Your task to perform on an android device: toggle javascript in the chrome app Image 0: 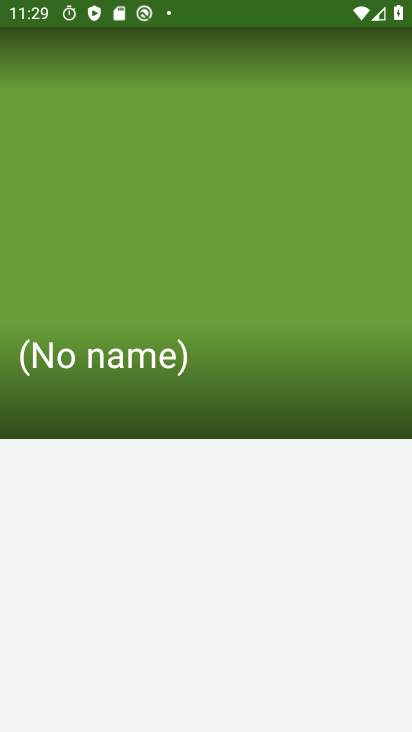
Step 0: drag from (260, 665) to (260, 243)
Your task to perform on an android device: toggle javascript in the chrome app Image 1: 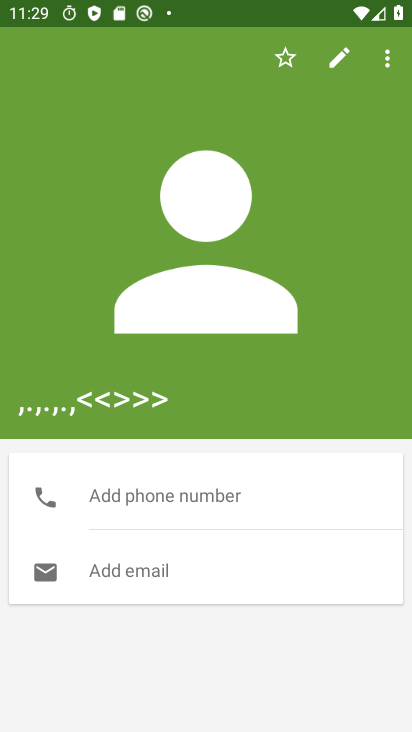
Step 1: press back button
Your task to perform on an android device: toggle javascript in the chrome app Image 2: 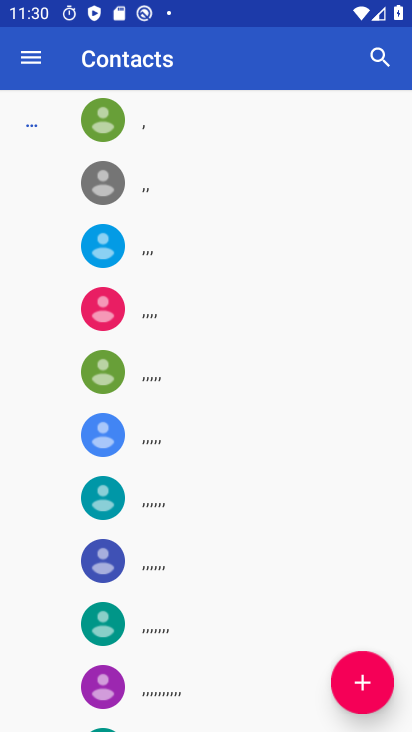
Step 2: press home button
Your task to perform on an android device: toggle javascript in the chrome app Image 3: 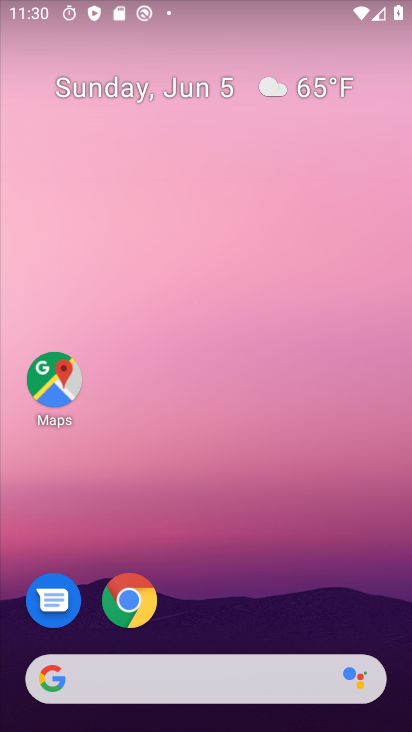
Step 3: drag from (238, 690) to (167, 518)
Your task to perform on an android device: toggle javascript in the chrome app Image 4: 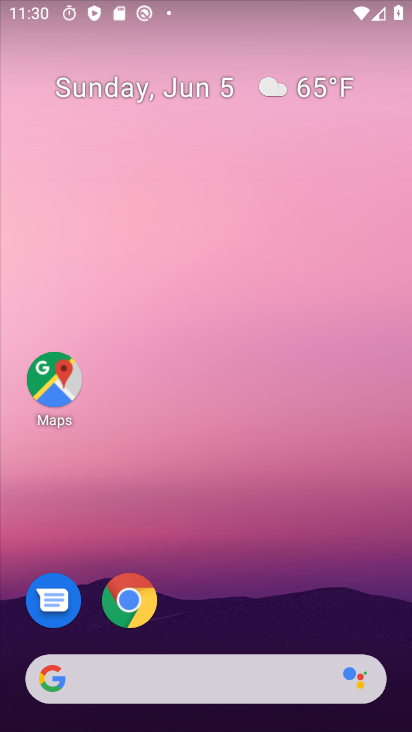
Step 4: drag from (212, 683) to (202, 45)
Your task to perform on an android device: toggle javascript in the chrome app Image 5: 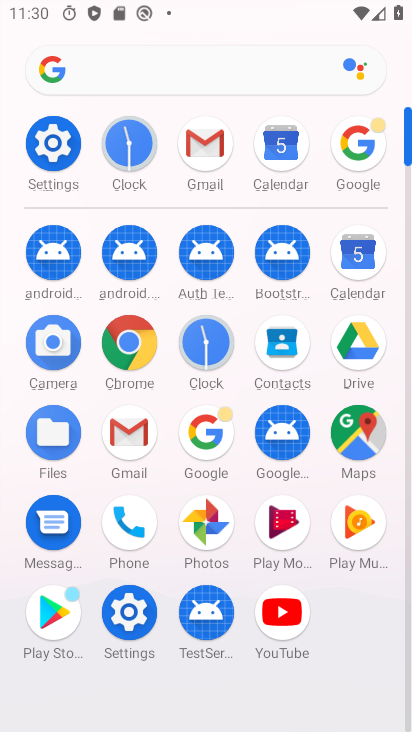
Step 5: click (121, 352)
Your task to perform on an android device: toggle javascript in the chrome app Image 6: 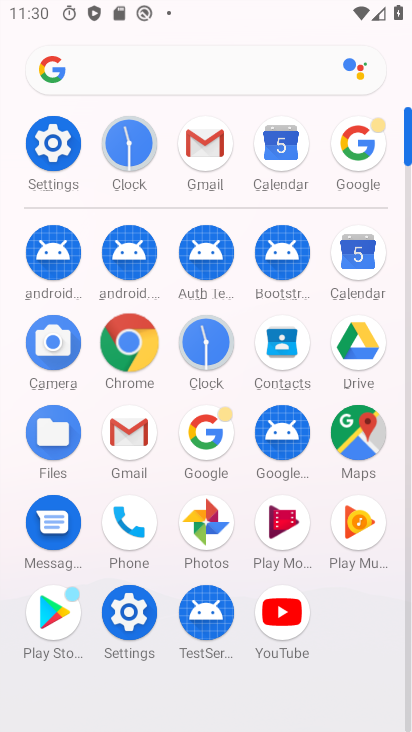
Step 6: click (130, 341)
Your task to perform on an android device: toggle javascript in the chrome app Image 7: 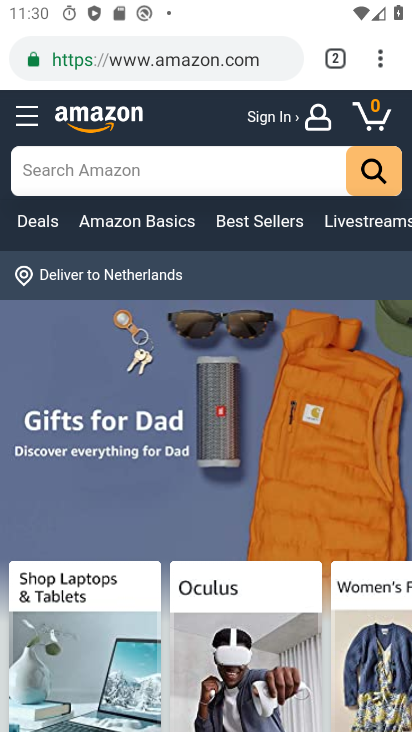
Step 7: drag from (374, 54) to (176, 648)
Your task to perform on an android device: toggle javascript in the chrome app Image 8: 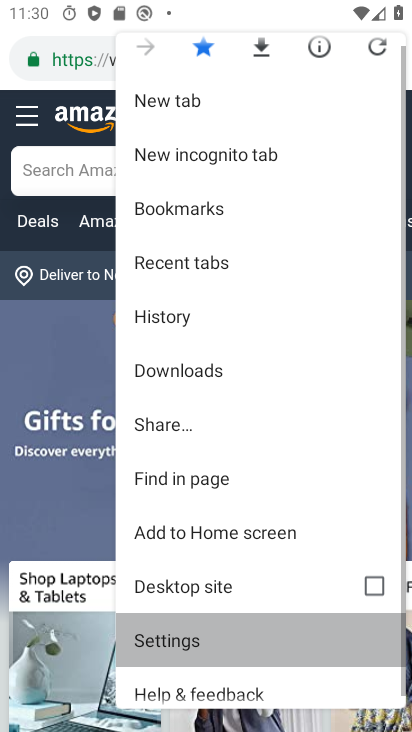
Step 8: click (175, 648)
Your task to perform on an android device: toggle javascript in the chrome app Image 9: 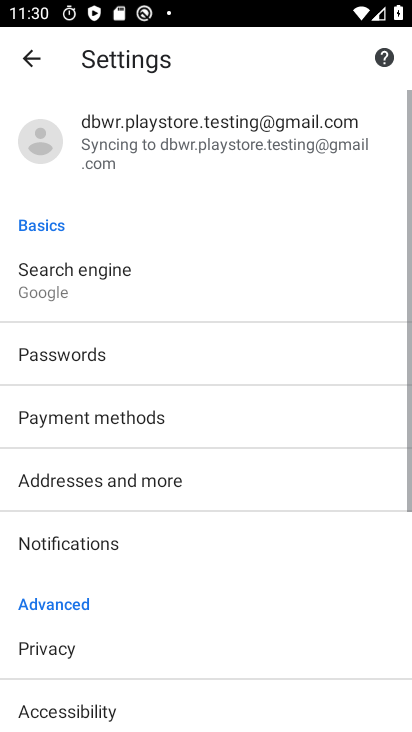
Step 9: click (122, 220)
Your task to perform on an android device: toggle javascript in the chrome app Image 10: 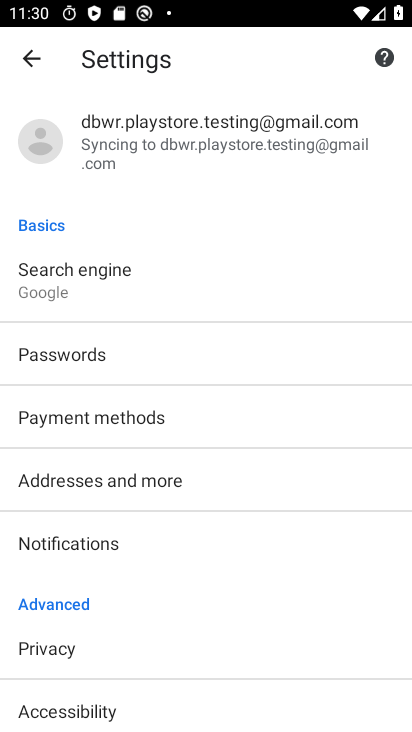
Step 10: drag from (231, 541) to (138, 89)
Your task to perform on an android device: toggle javascript in the chrome app Image 11: 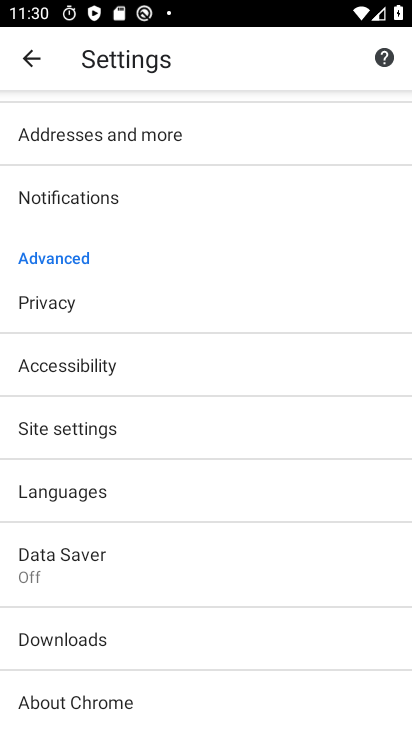
Step 11: click (49, 424)
Your task to perform on an android device: toggle javascript in the chrome app Image 12: 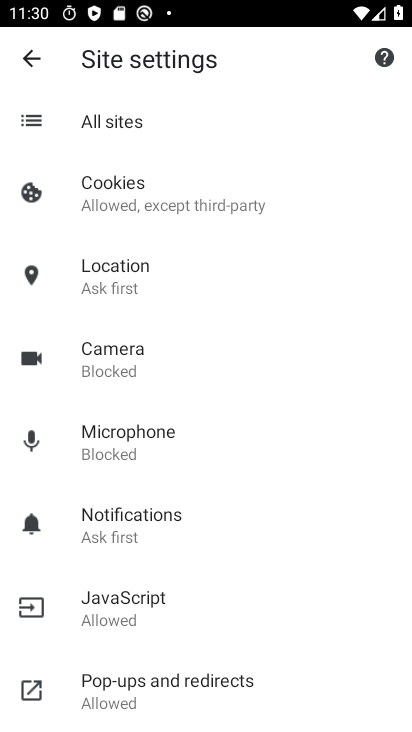
Step 12: click (128, 601)
Your task to perform on an android device: toggle javascript in the chrome app Image 13: 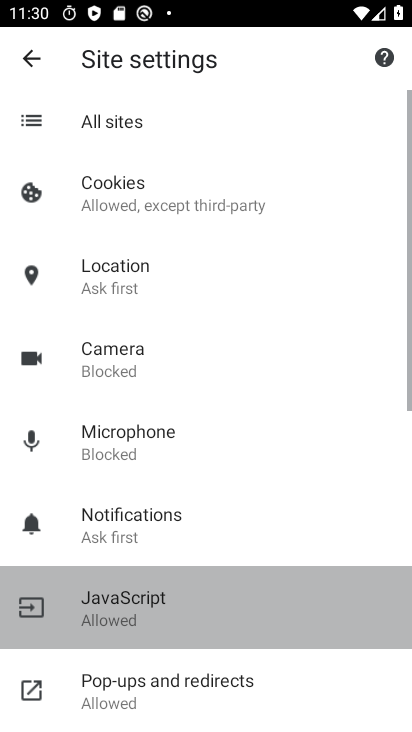
Step 13: click (128, 601)
Your task to perform on an android device: toggle javascript in the chrome app Image 14: 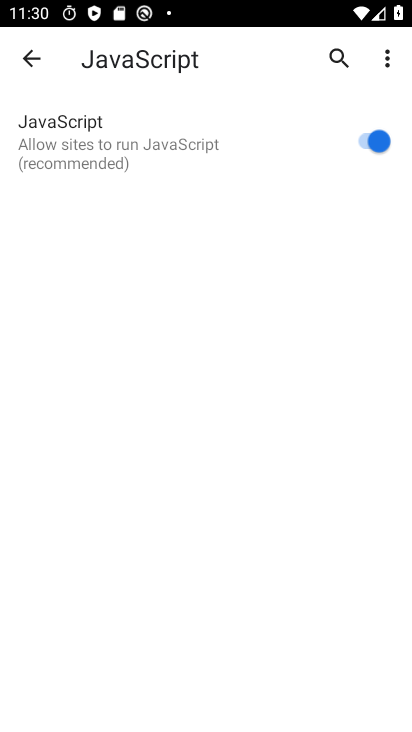
Step 14: task complete